Your task to perform on an android device: Open network settings Image 0: 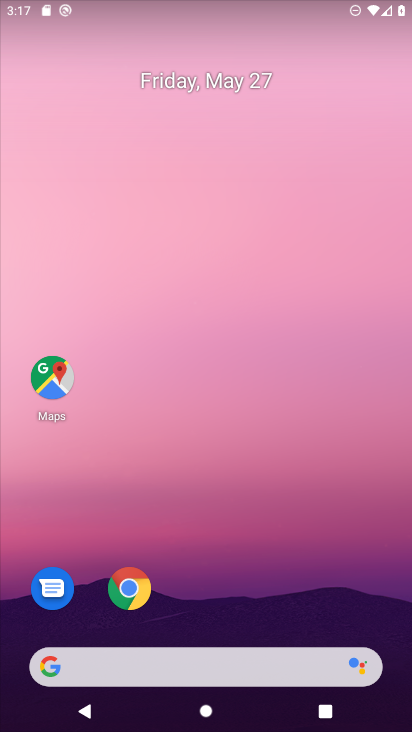
Step 0: drag from (306, 512) to (354, 56)
Your task to perform on an android device: Open network settings Image 1: 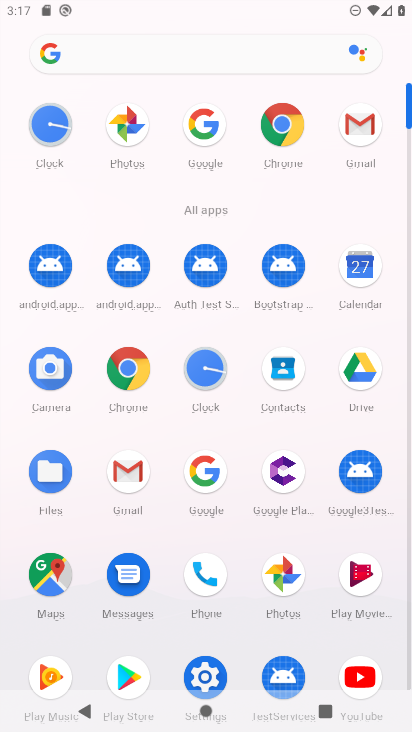
Step 1: drag from (333, 198) to (358, 31)
Your task to perform on an android device: Open network settings Image 2: 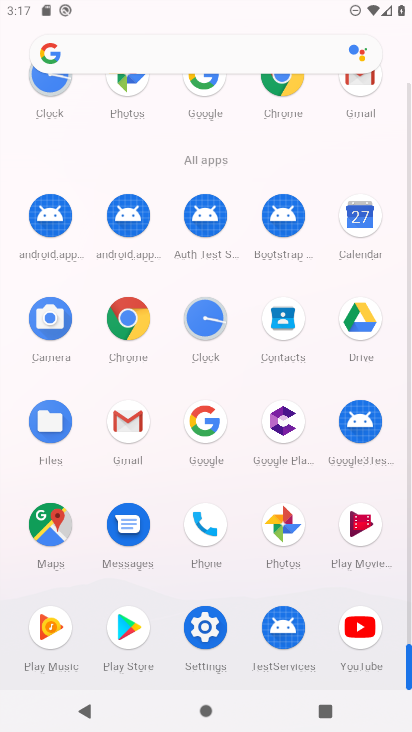
Step 2: click (215, 621)
Your task to perform on an android device: Open network settings Image 3: 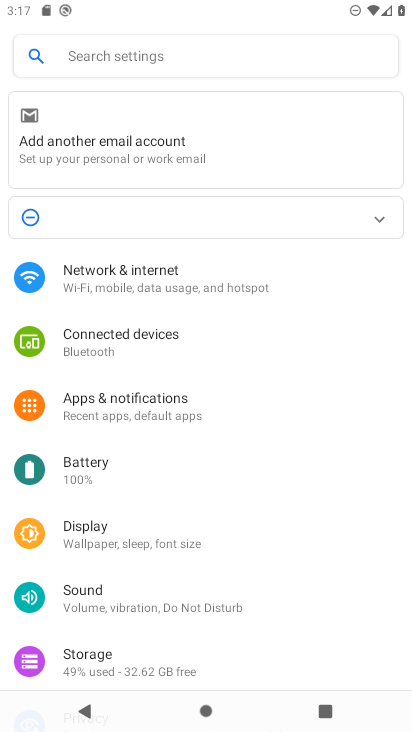
Step 3: click (150, 289)
Your task to perform on an android device: Open network settings Image 4: 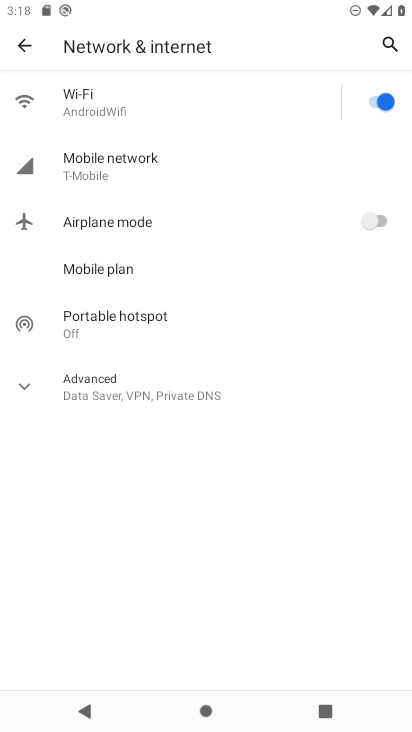
Step 4: task complete